Your task to perform on an android device: turn off notifications in google photos Image 0: 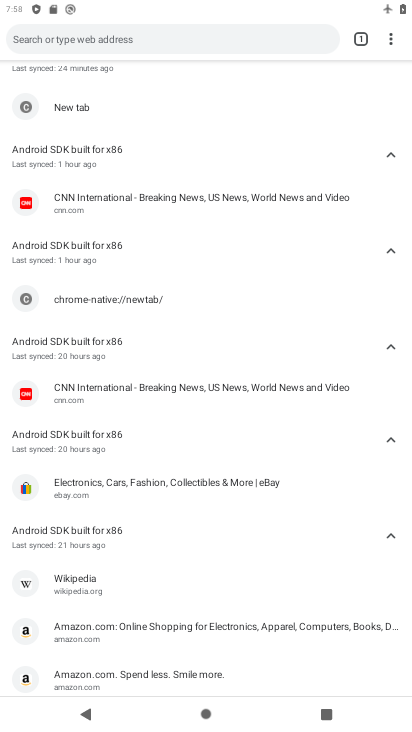
Step 0: press home button
Your task to perform on an android device: turn off notifications in google photos Image 1: 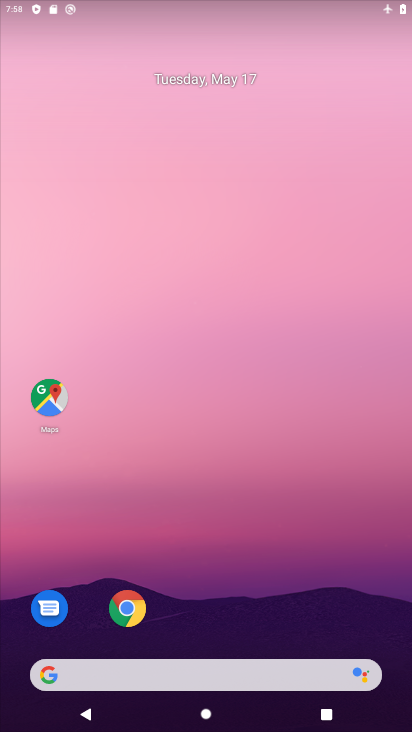
Step 1: drag from (324, 574) to (275, 232)
Your task to perform on an android device: turn off notifications in google photos Image 2: 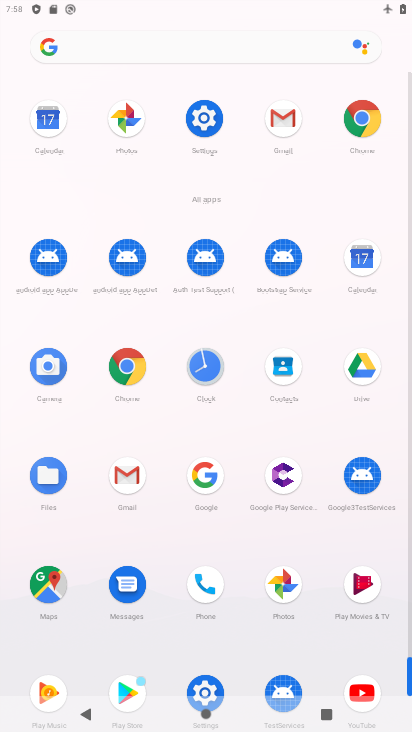
Step 2: click (209, 681)
Your task to perform on an android device: turn off notifications in google photos Image 3: 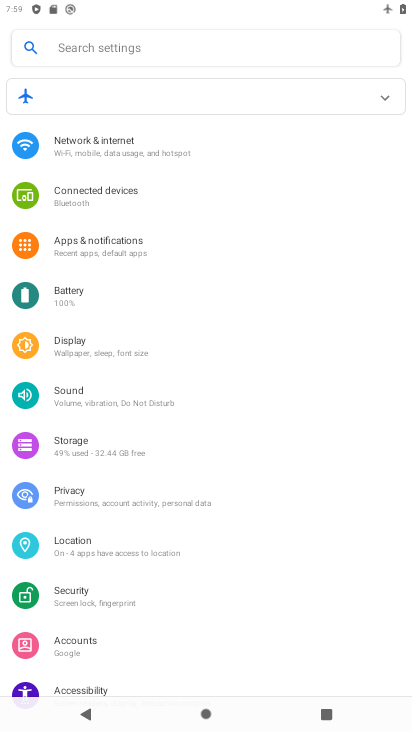
Step 3: press home button
Your task to perform on an android device: turn off notifications in google photos Image 4: 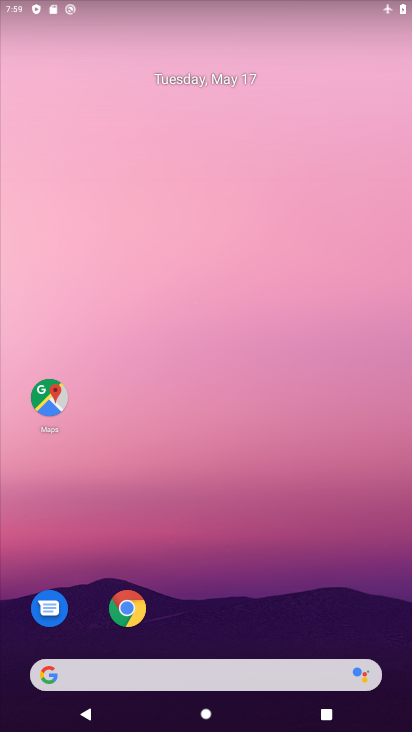
Step 4: drag from (362, 553) to (329, 170)
Your task to perform on an android device: turn off notifications in google photos Image 5: 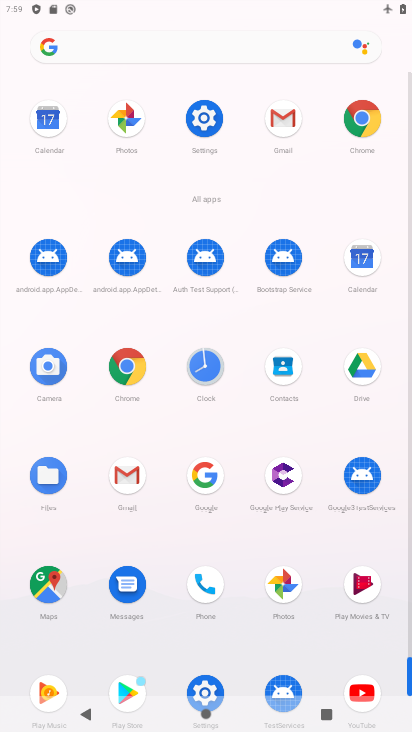
Step 5: click (286, 588)
Your task to perform on an android device: turn off notifications in google photos Image 6: 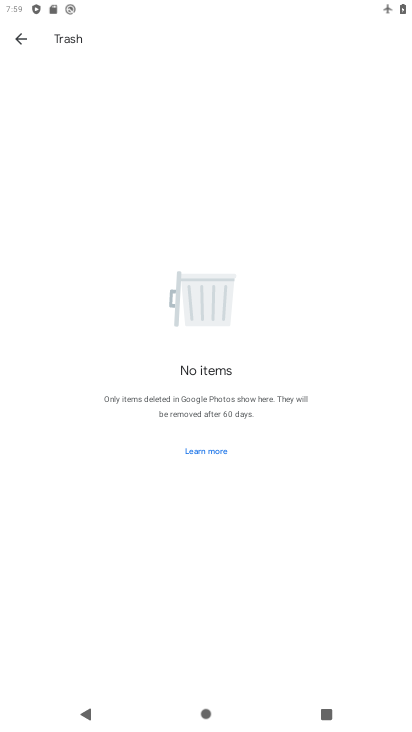
Step 6: click (27, 45)
Your task to perform on an android device: turn off notifications in google photos Image 7: 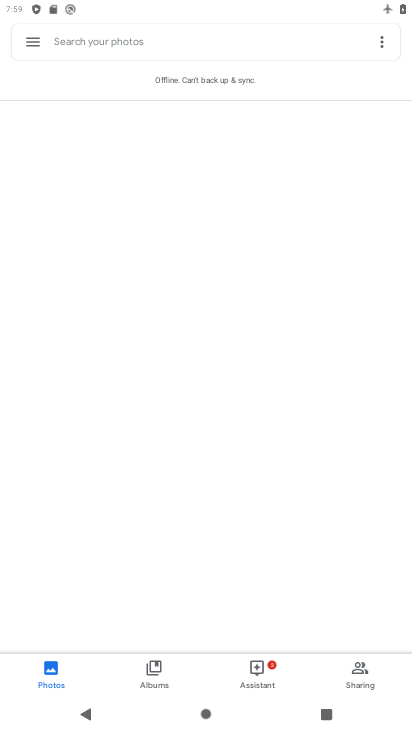
Step 7: click (26, 41)
Your task to perform on an android device: turn off notifications in google photos Image 8: 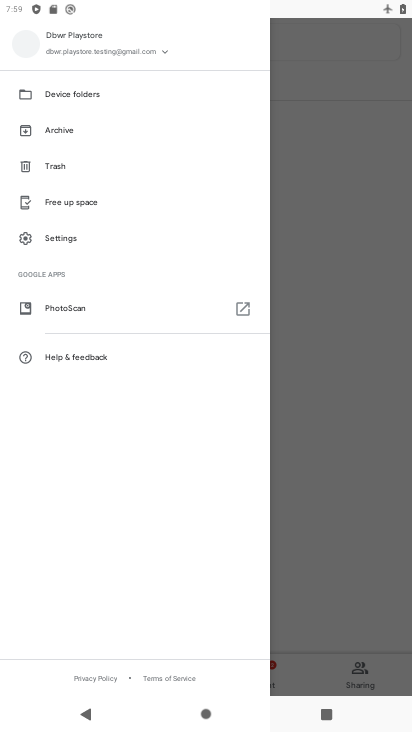
Step 8: click (125, 233)
Your task to perform on an android device: turn off notifications in google photos Image 9: 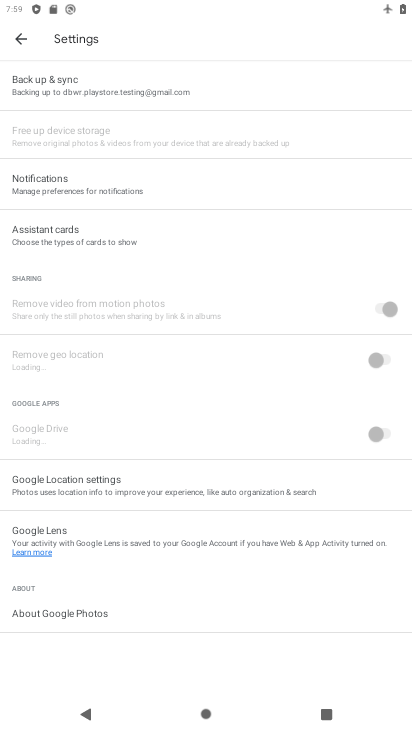
Step 9: click (118, 172)
Your task to perform on an android device: turn off notifications in google photos Image 10: 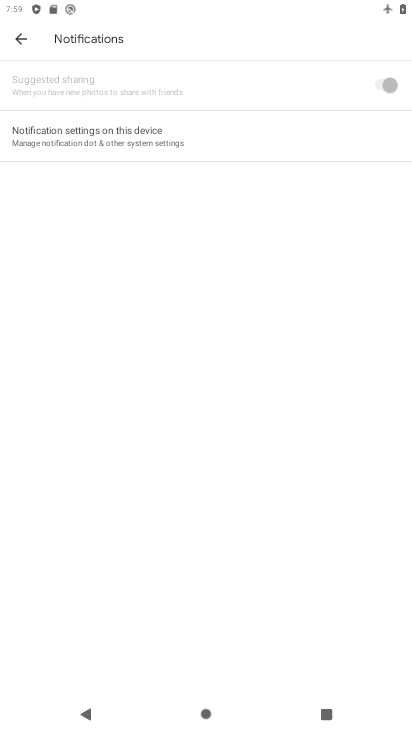
Step 10: click (122, 145)
Your task to perform on an android device: turn off notifications in google photos Image 11: 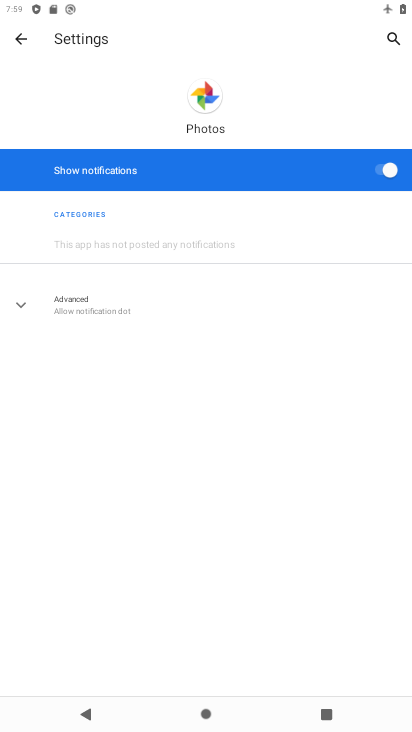
Step 11: click (392, 163)
Your task to perform on an android device: turn off notifications in google photos Image 12: 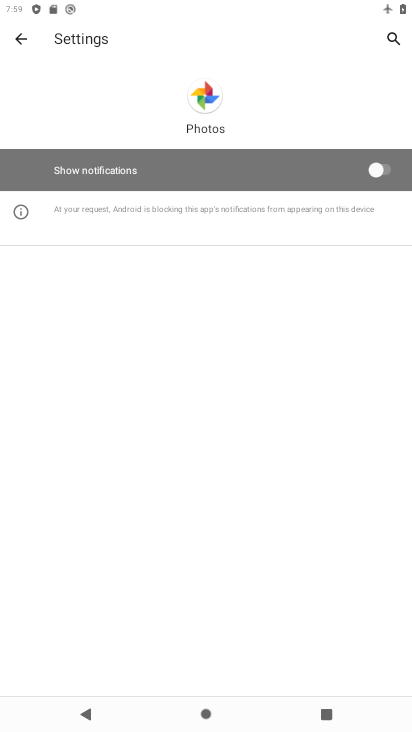
Step 12: task complete